Your task to perform on an android device: What's the weather going to be this weekend? Image 0: 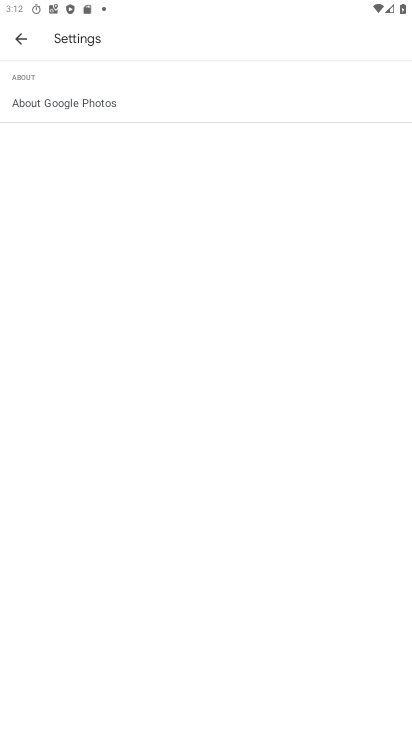
Step 0: press home button
Your task to perform on an android device: What's the weather going to be this weekend? Image 1: 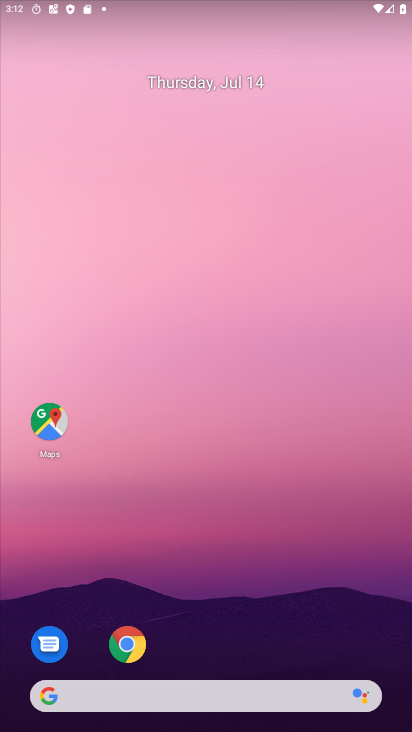
Step 1: click (126, 691)
Your task to perform on an android device: What's the weather going to be this weekend? Image 2: 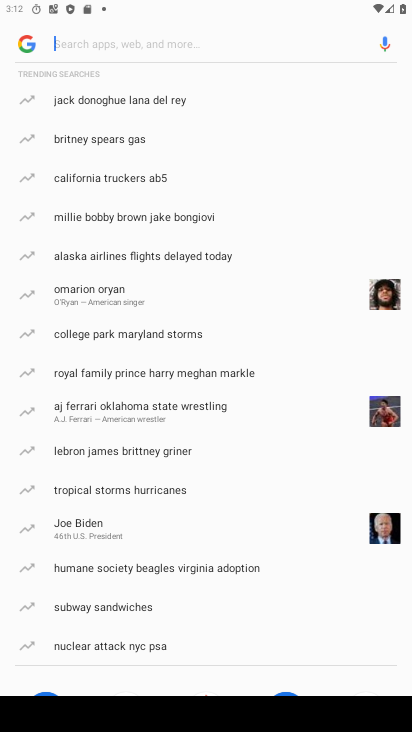
Step 2: type "What's the weather going to be this weekend?"
Your task to perform on an android device: What's the weather going to be this weekend? Image 3: 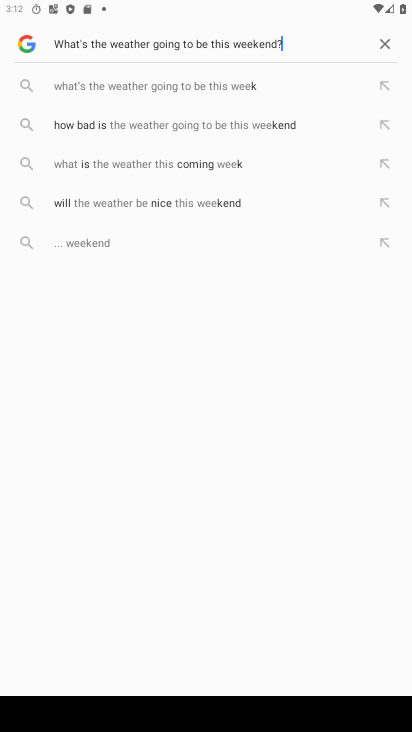
Step 3: type ""
Your task to perform on an android device: What's the weather going to be this weekend? Image 4: 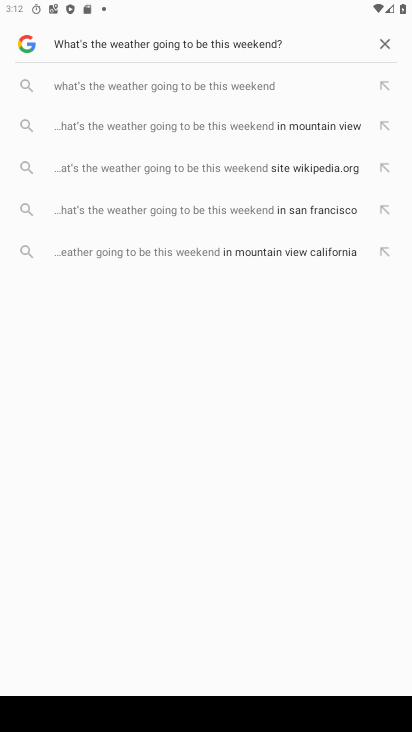
Step 4: click (214, 89)
Your task to perform on an android device: What's the weather going to be this weekend? Image 5: 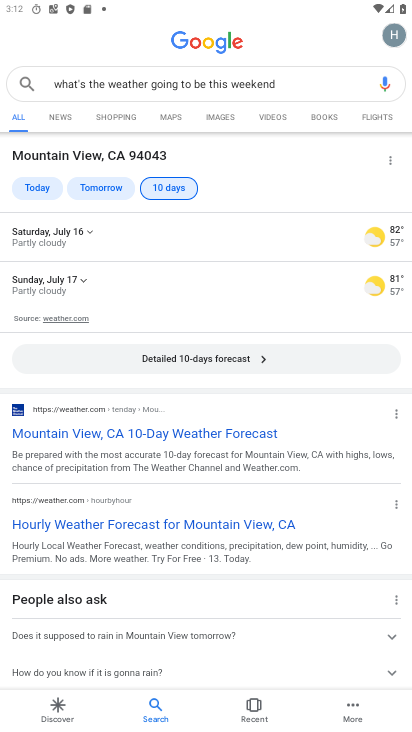
Step 5: task complete